Your task to perform on an android device: Open the calendar app, open the side menu, and click the "Day" option Image 0: 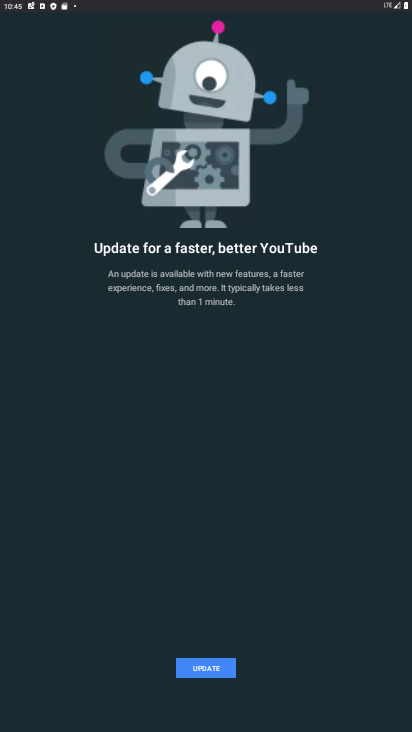
Step 0: press home button
Your task to perform on an android device: Open the calendar app, open the side menu, and click the "Day" option Image 1: 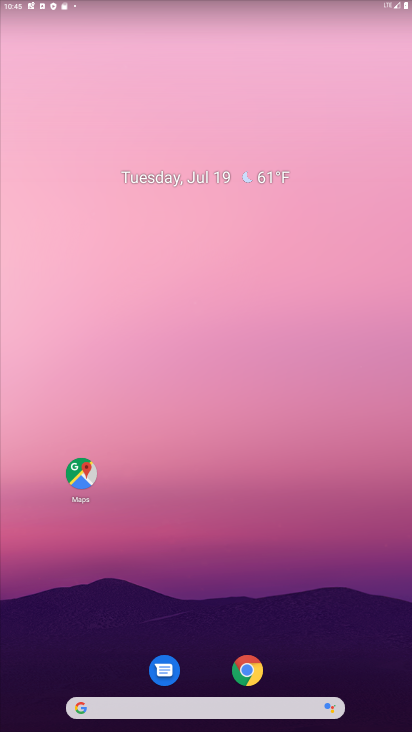
Step 1: drag from (277, 695) to (353, 546)
Your task to perform on an android device: Open the calendar app, open the side menu, and click the "Day" option Image 2: 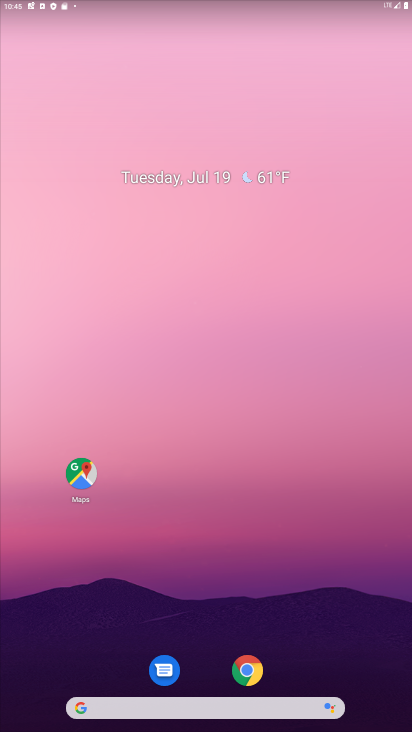
Step 2: drag from (207, 730) to (391, 14)
Your task to perform on an android device: Open the calendar app, open the side menu, and click the "Day" option Image 3: 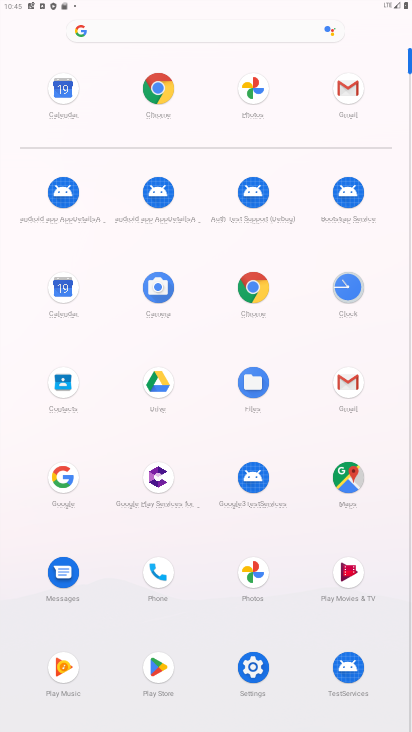
Step 3: click (63, 96)
Your task to perform on an android device: Open the calendar app, open the side menu, and click the "Day" option Image 4: 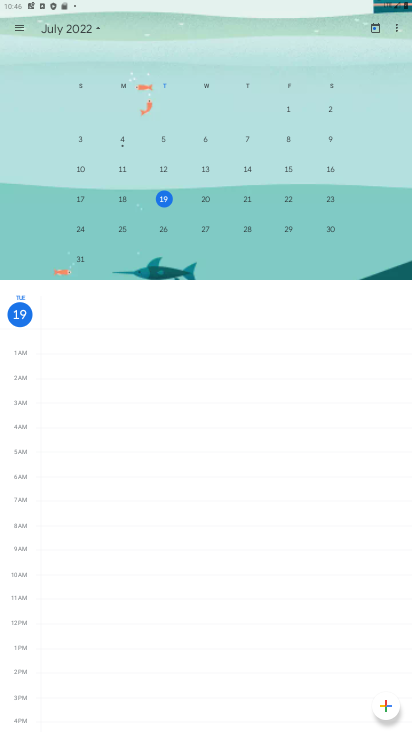
Step 4: click (19, 28)
Your task to perform on an android device: Open the calendar app, open the side menu, and click the "Day" option Image 5: 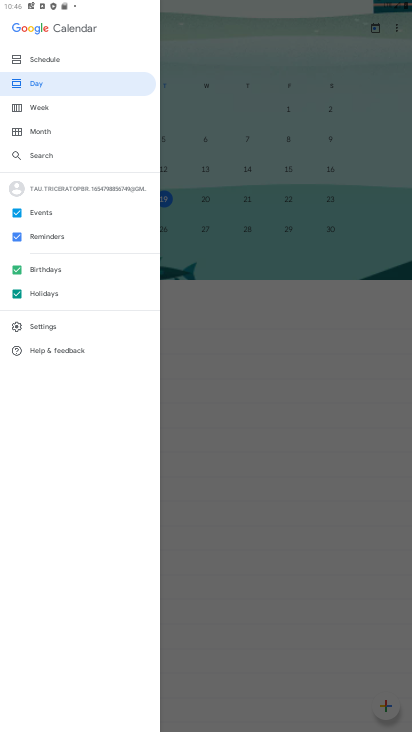
Step 5: click (61, 88)
Your task to perform on an android device: Open the calendar app, open the side menu, and click the "Day" option Image 6: 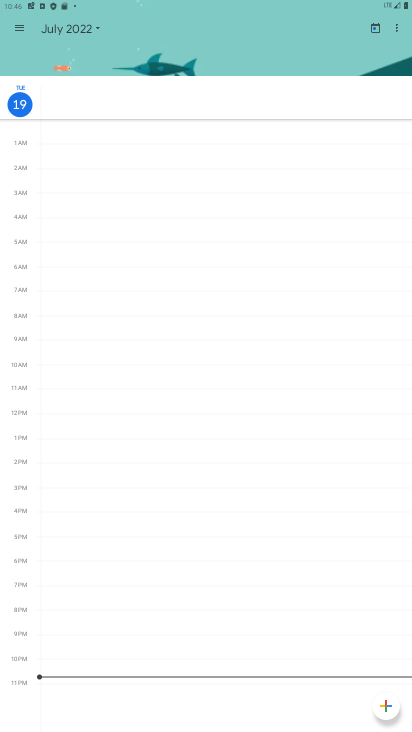
Step 6: task complete